Your task to perform on an android device: open a bookmark in the chrome app Image 0: 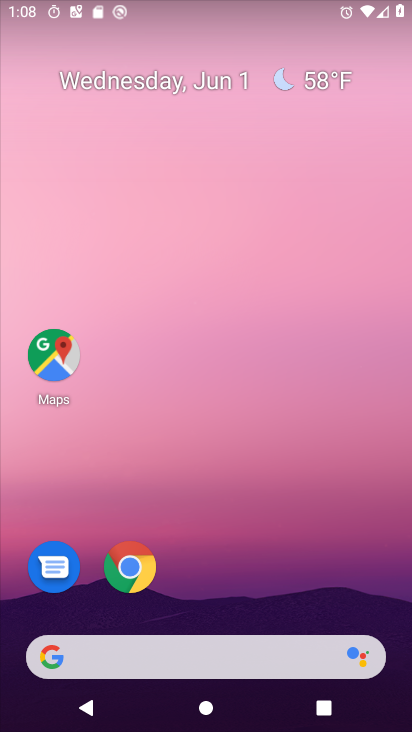
Step 0: drag from (203, 580) to (199, 91)
Your task to perform on an android device: open a bookmark in the chrome app Image 1: 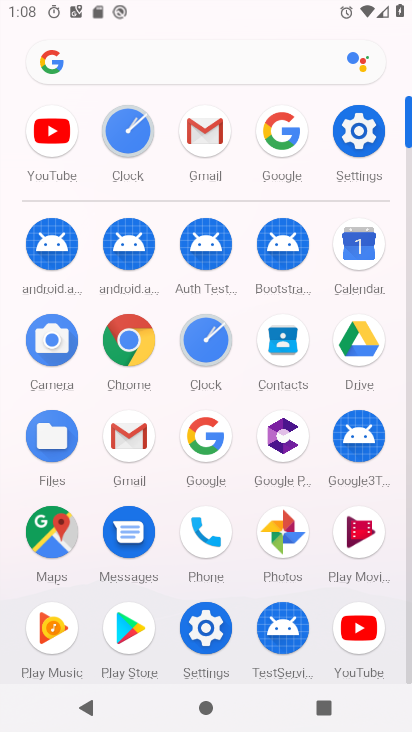
Step 1: click (135, 339)
Your task to perform on an android device: open a bookmark in the chrome app Image 2: 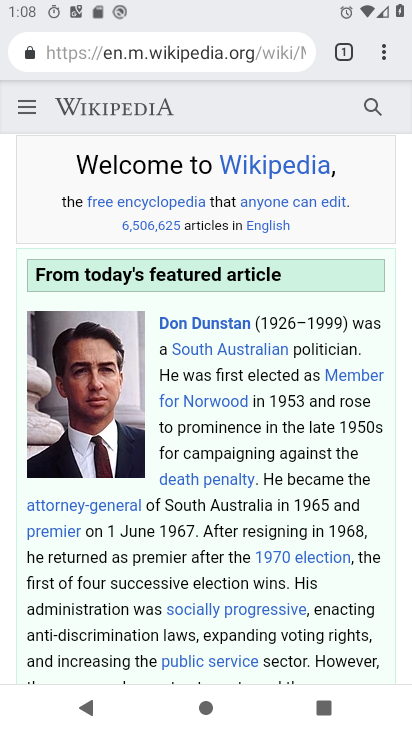
Step 2: click (374, 60)
Your task to perform on an android device: open a bookmark in the chrome app Image 3: 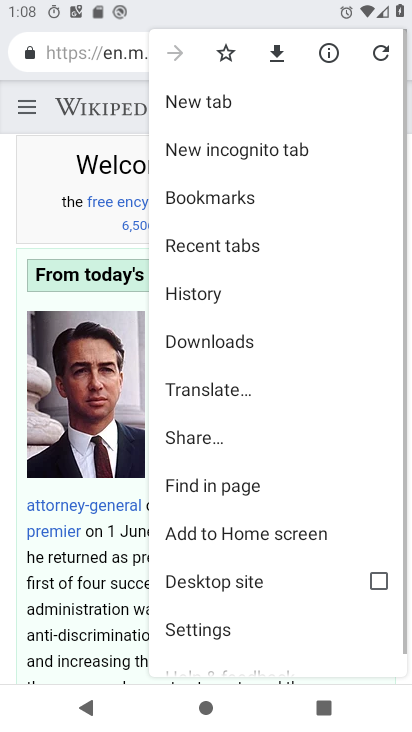
Step 3: click (224, 204)
Your task to perform on an android device: open a bookmark in the chrome app Image 4: 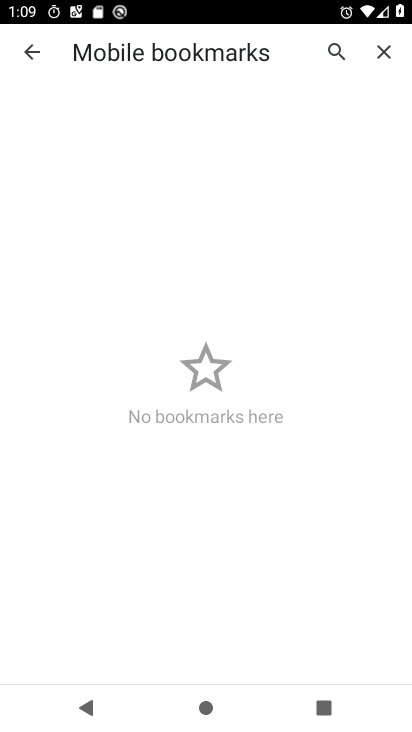
Step 4: task complete